Your task to perform on an android device: remove spam from my inbox in the gmail app Image 0: 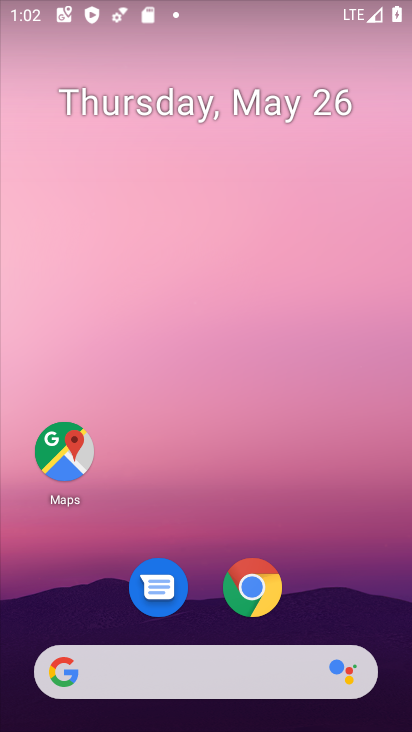
Step 0: drag from (373, 581) to (330, 177)
Your task to perform on an android device: remove spam from my inbox in the gmail app Image 1: 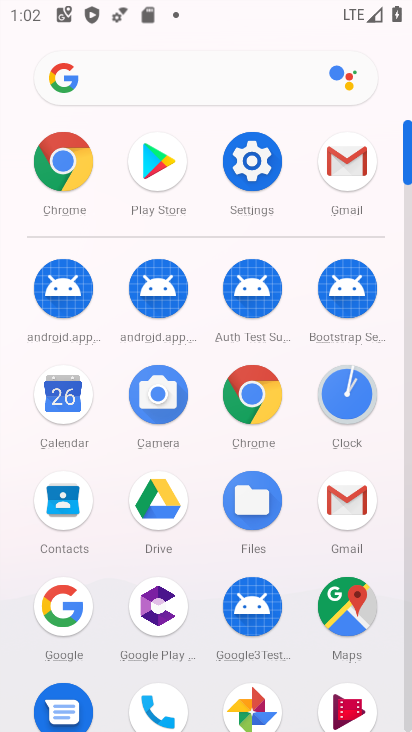
Step 1: click (346, 494)
Your task to perform on an android device: remove spam from my inbox in the gmail app Image 2: 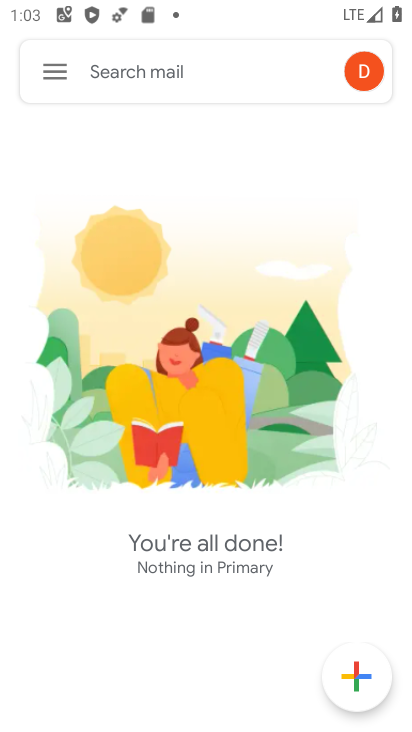
Step 2: click (56, 72)
Your task to perform on an android device: remove spam from my inbox in the gmail app Image 3: 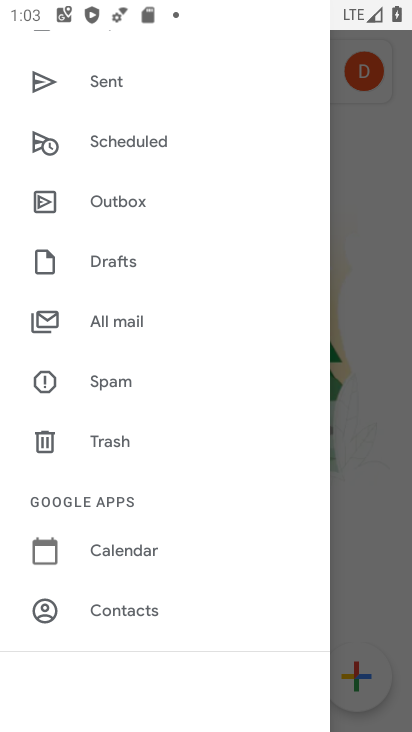
Step 3: drag from (231, 485) to (234, 282)
Your task to perform on an android device: remove spam from my inbox in the gmail app Image 4: 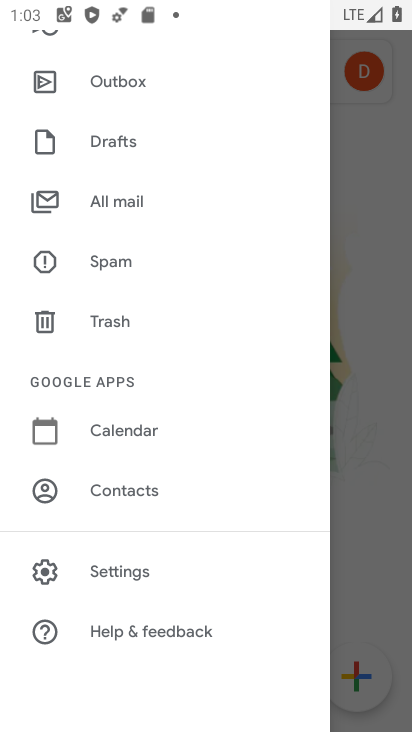
Step 4: drag from (218, 535) to (223, 349)
Your task to perform on an android device: remove spam from my inbox in the gmail app Image 5: 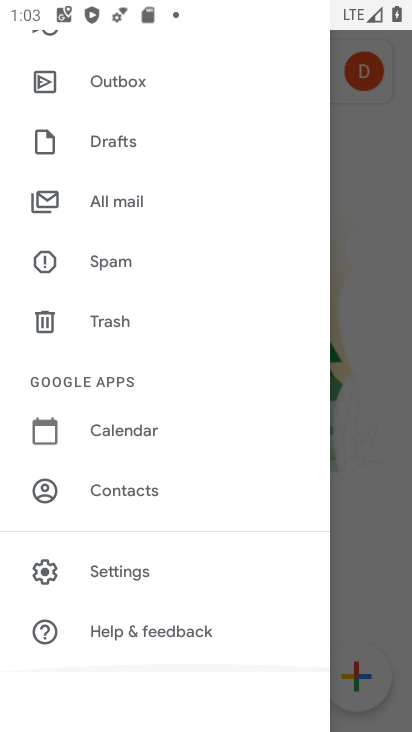
Step 5: drag from (242, 262) to (235, 423)
Your task to perform on an android device: remove spam from my inbox in the gmail app Image 6: 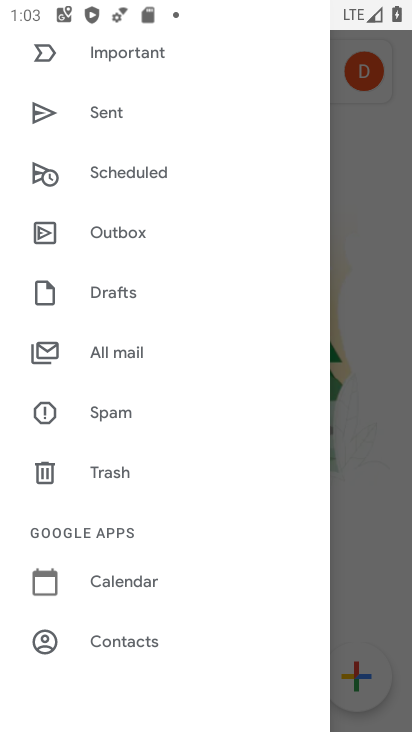
Step 6: drag from (240, 223) to (217, 385)
Your task to perform on an android device: remove spam from my inbox in the gmail app Image 7: 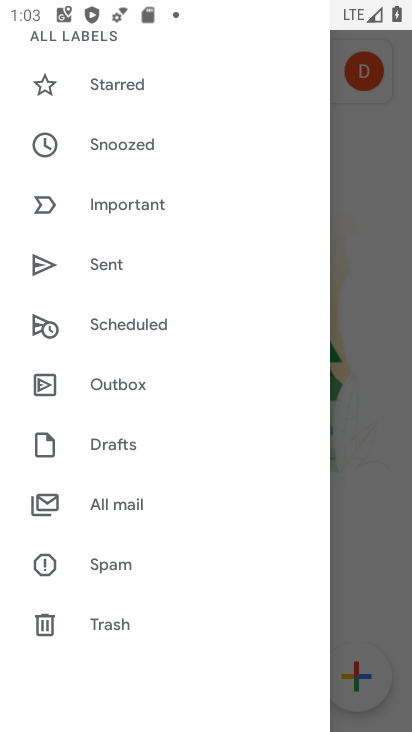
Step 7: drag from (226, 228) to (223, 348)
Your task to perform on an android device: remove spam from my inbox in the gmail app Image 8: 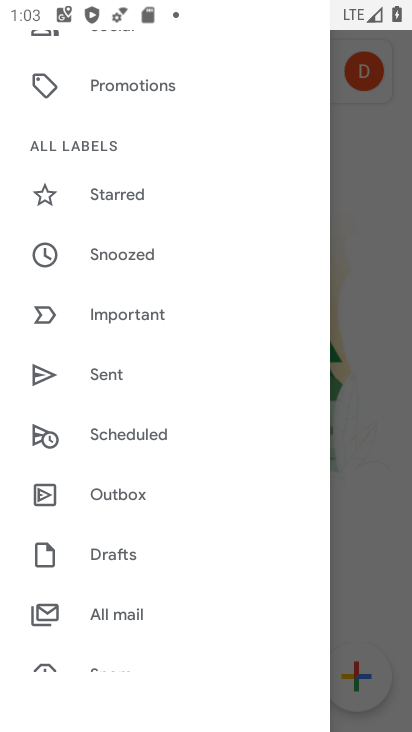
Step 8: drag from (235, 502) to (238, 363)
Your task to perform on an android device: remove spam from my inbox in the gmail app Image 9: 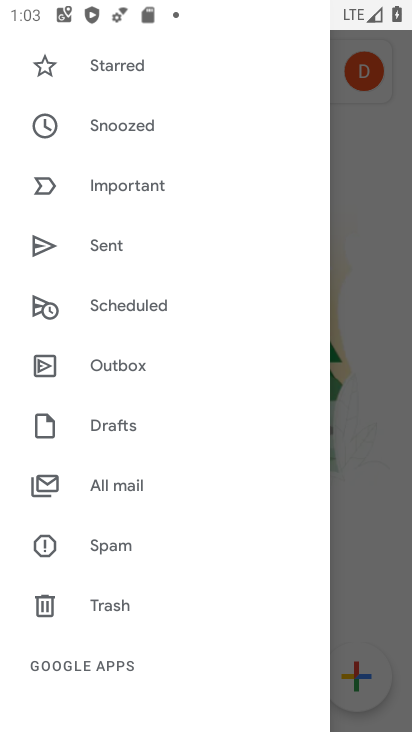
Step 9: drag from (247, 530) to (246, 410)
Your task to perform on an android device: remove spam from my inbox in the gmail app Image 10: 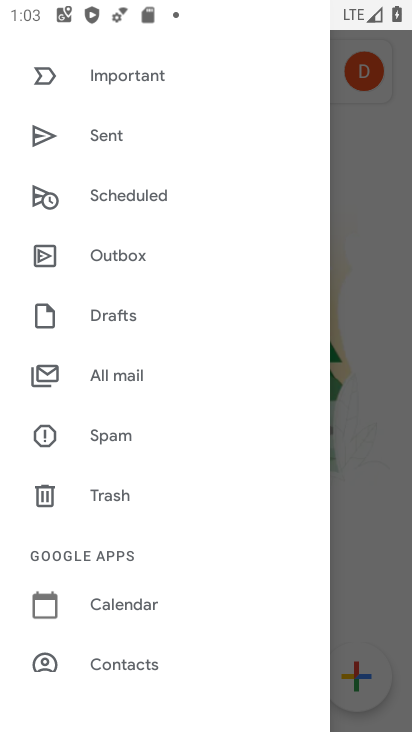
Step 10: drag from (227, 527) to (224, 413)
Your task to perform on an android device: remove spam from my inbox in the gmail app Image 11: 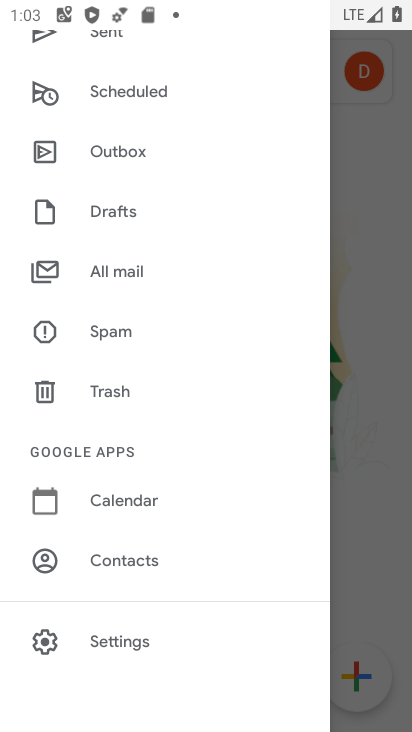
Step 11: click (127, 341)
Your task to perform on an android device: remove spam from my inbox in the gmail app Image 12: 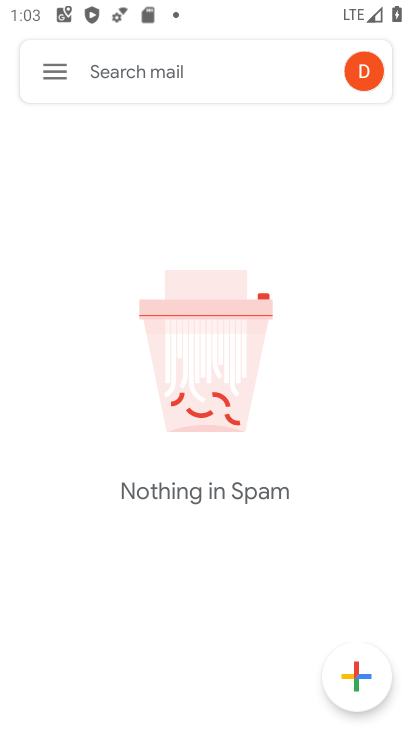
Step 12: task complete